Your task to perform on an android device: open a bookmark in the chrome app Image 0: 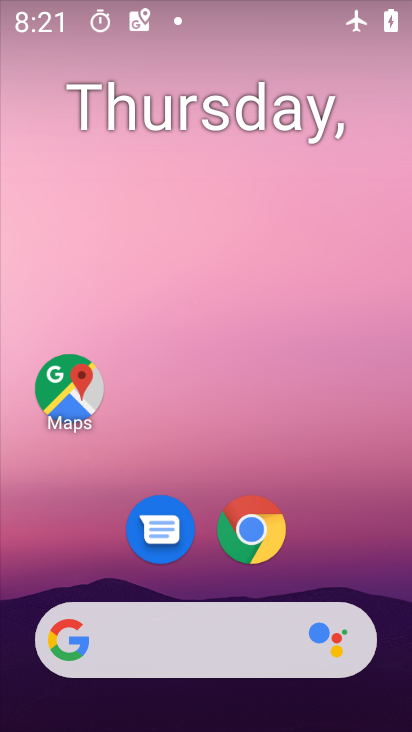
Step 0: drag from (369, 566) to (377, 169)
Your task to perform on an android device: open a bookmark in the chrome app Image 1: 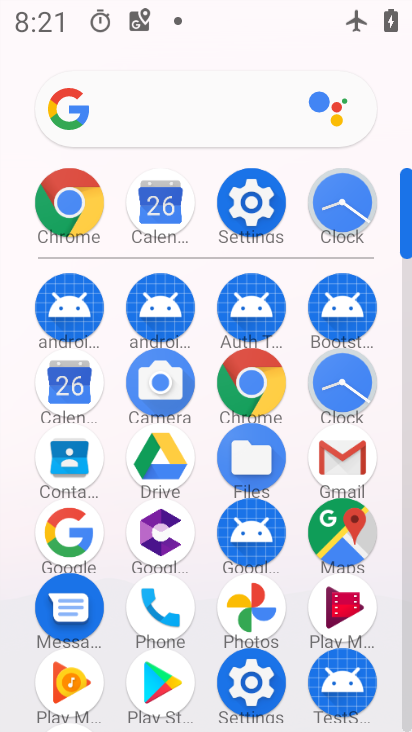
Step 1: click (266, 392)
Your task to perform on an android device: open a bookmark in the chrome app Image 2: 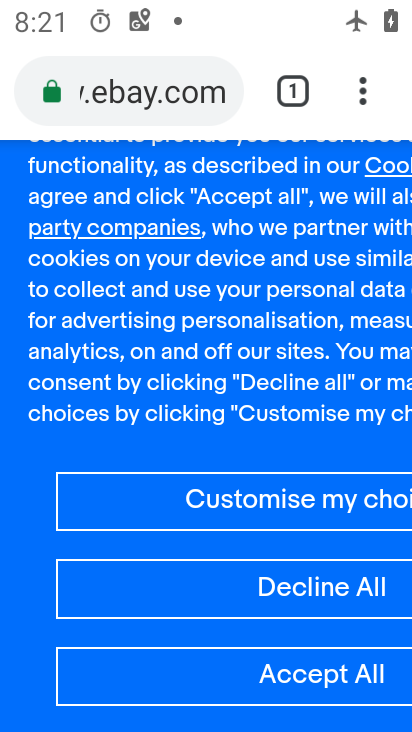
Step 2: click (364, 100)
Your task to perform on an android device: open a bookmark in the chrome app Image 3: 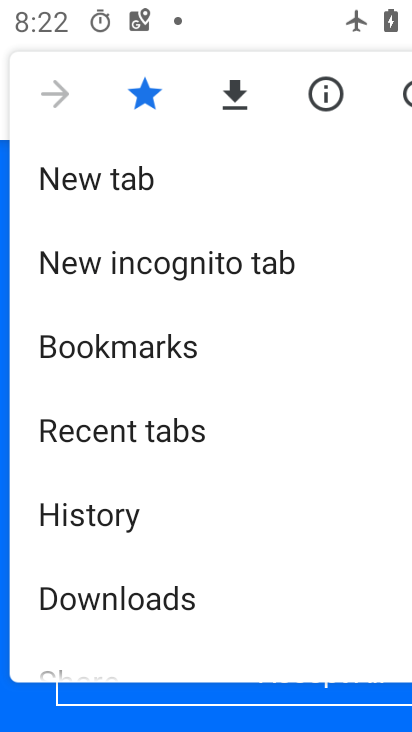
Step 3: click (195, 352)
Your task to perform on an android device: open a bookmark in the chrome app Image 4: 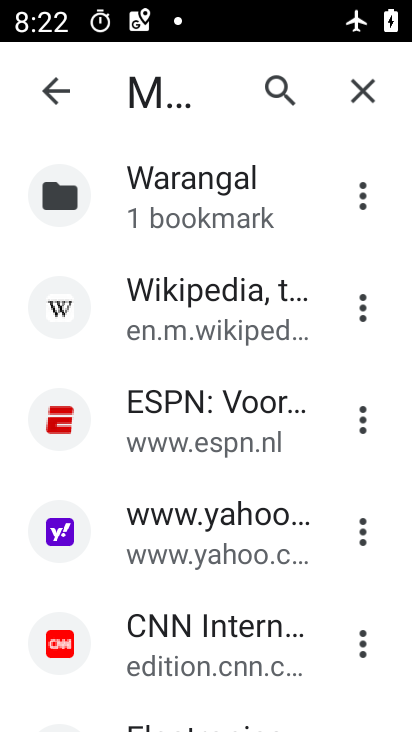
Step 4: click (195, 352)
Your task to perform on an android device: open a bookmark in the chrome app Image 5: 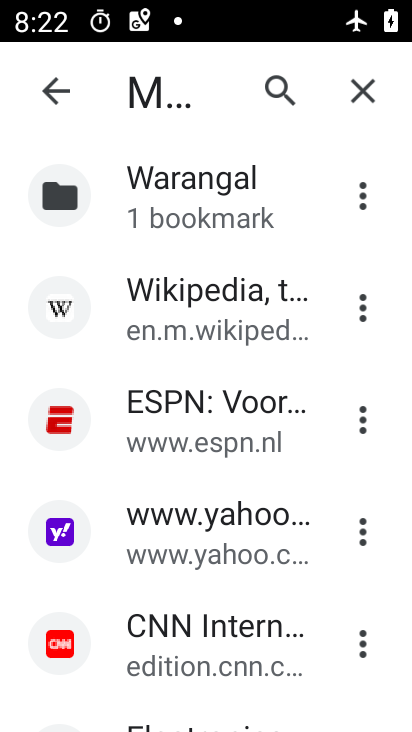
Step 5: click (205, 322)
Your task to perform on an android device: open a bookmark in the chrome app Image 6: 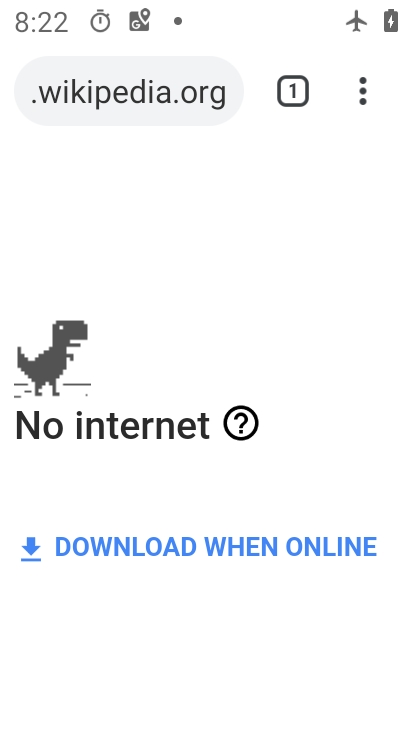
Step 6: task complete